Your task to perform on an android device: Search for "usb-c" on walmart, select the first entry, add it to the cart, then select checkout. Image 0: 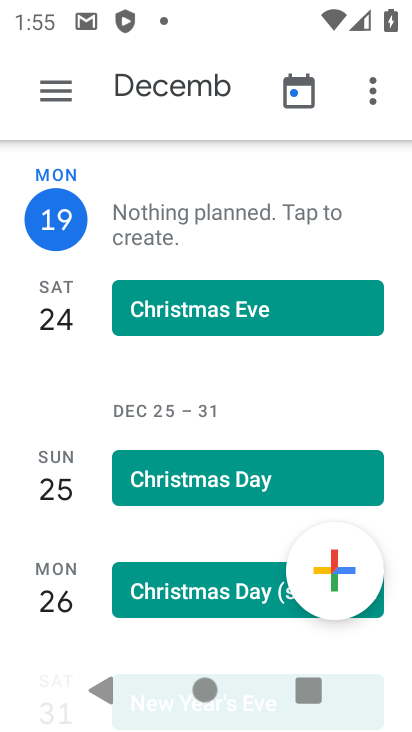
Step 0: press home button
Your task to perform on an android device: Search for "usb-c" on walmart, select the first entry, add it to the cart, then select checkout. Image 1: 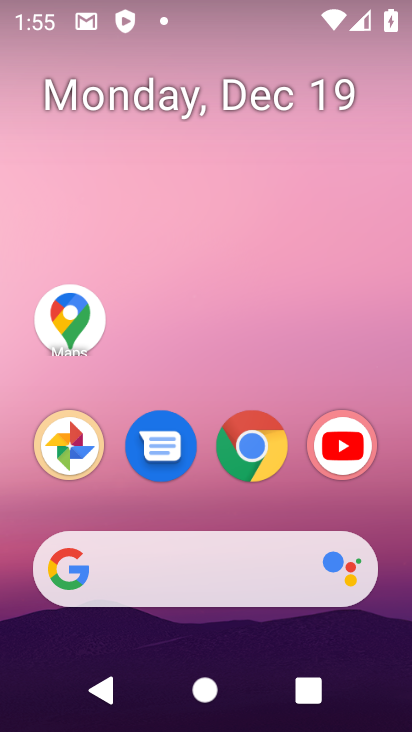
Step 1: click (259, 463)
Your task to perform on an android device: Search for "usb-c" on walmart, select the first entry, add it to the cart, then select checkout. Image 2: 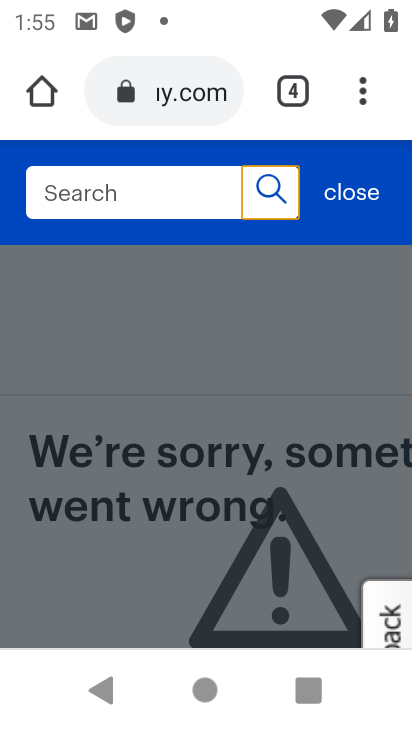
Step 2: click (196, 113)
Your task to perform on an android device: Search for "usb-c" on walmart, select the first entry, add it to the cart, then select checkout. Image 3: 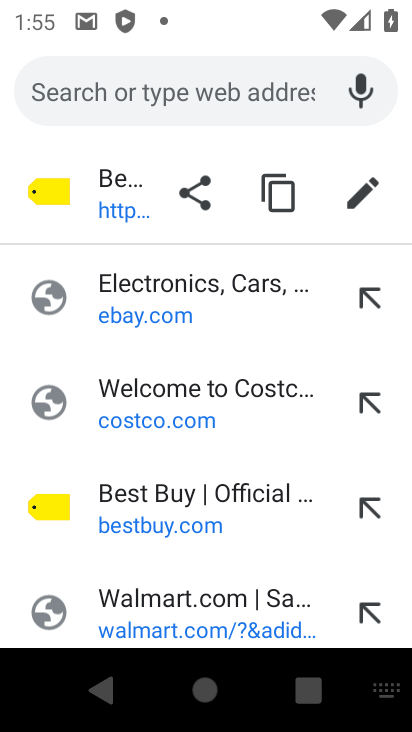
Step 3: type "walmart"
Your task to perform on an android device: Search for "usb-c" on walmart, select the first entry, add it to the cart, then select checkout. Image 4: 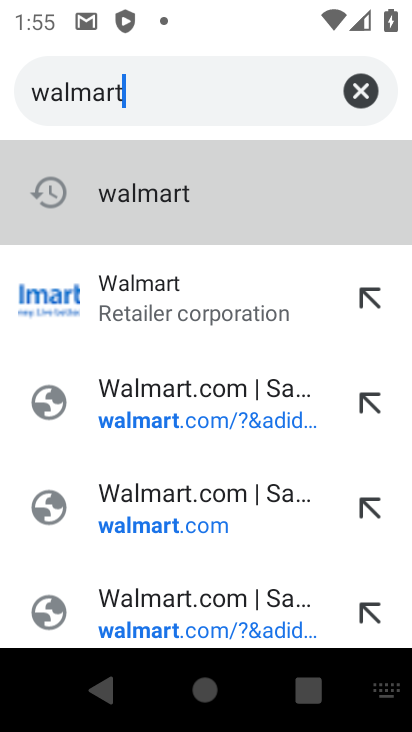
Step 4: click (161, 281)
Your task to perform on an android device: Search for "usb-c" on walmart, select the first entry, add it to the cart, then select checkout. Image 5: 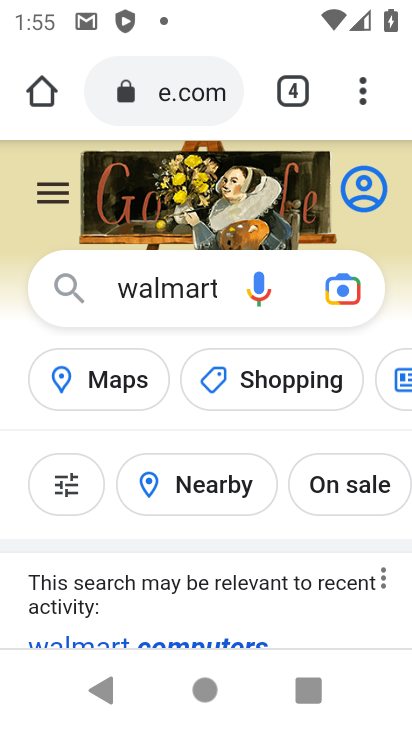
Step 5: click (147, 639)
Your task to perform on an android device: Search for "usb-c" on walmart, select the first entry, add it to the cart, then select checkout. Image 6: 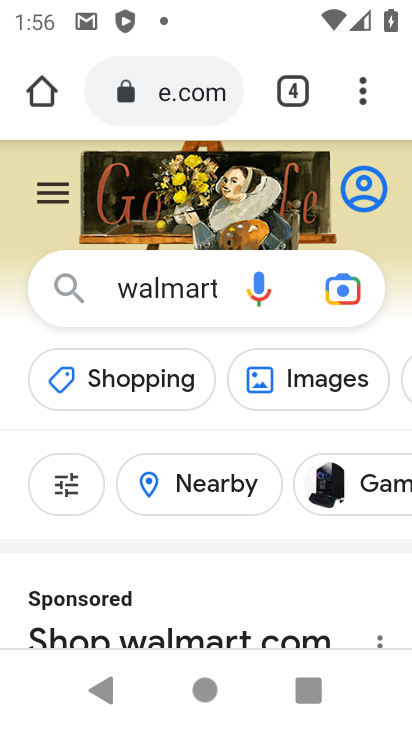
Step 6: drag from (103, 611) to (52, 103)
Your task to perform on an android device: Search for "usb-c" on walmart, select the first entry, add it to the cart, then select checkout. Image 7: 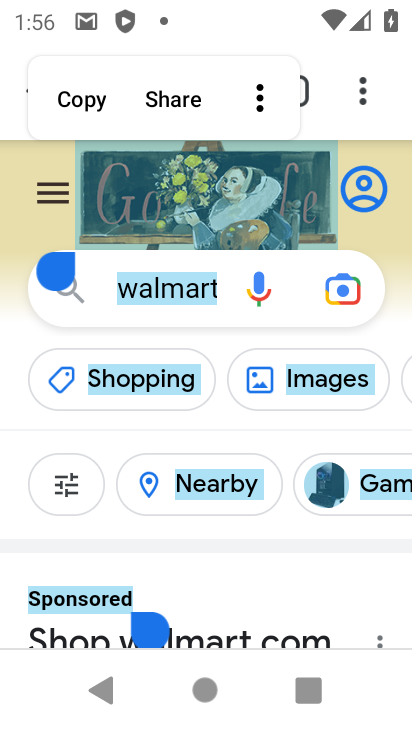
Step 7: click (264, 576)
Your task to perform on an android device: Search for "usb-c" on walmart, select the first entry, add it to the cart, then select checkout. Image 8: 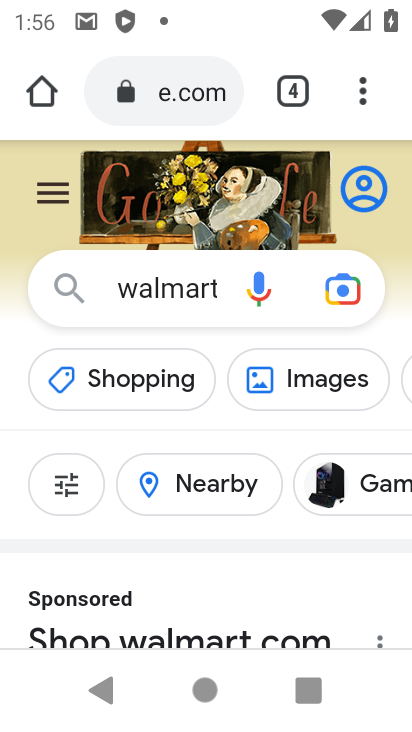
Step 8: drag from (264, 576) to (234, 126)
Your task to perform on an android device: Search for "usb-c" on walmart, select the first entry, add it to the cart, then select checkout. Image 9: 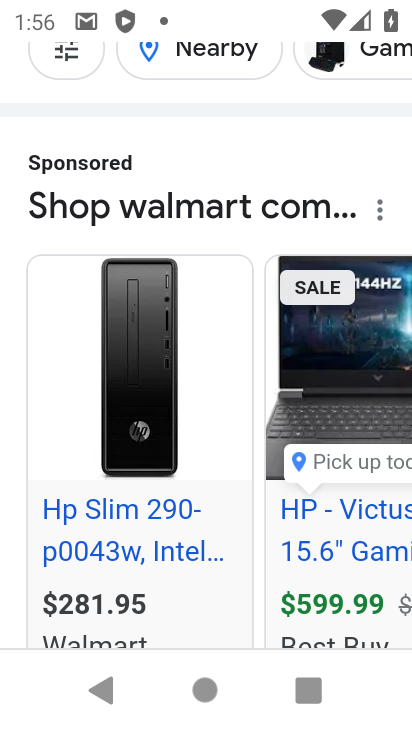
Step 9: drag from (224, 610) to (214, 451)
Your task to perform on an android device: Search for "usb-c" on walmart, select the first entry, add it to the cart, then select checkout. Image 10: 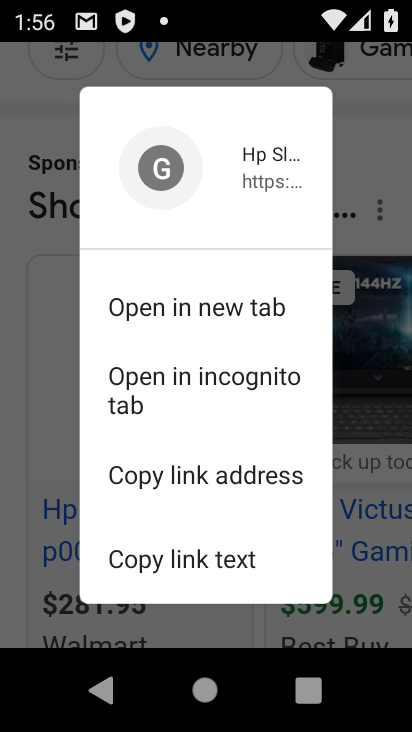
Step 10: click (62, 538)
Your task to perform on an android device: Search for "usb-c" on walmart, select the first entry, add it to the cart, then select checkout. Image 11: 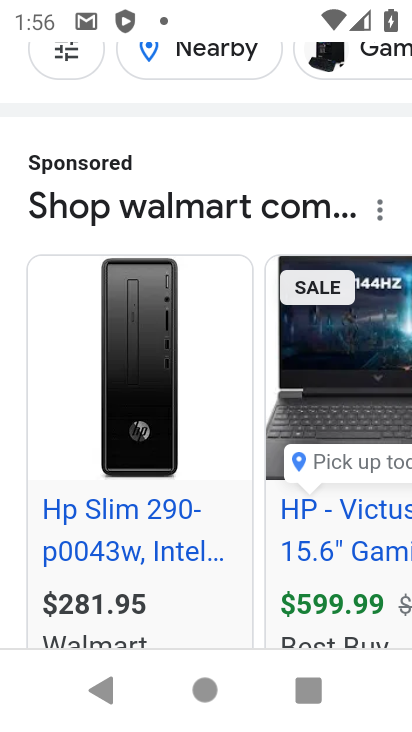
Step 11: click (62, 538)
Your task to perform on an android device: Search for "usb-c" on walmart, select the first entry, add it to the cart, then select checkout. Image 12: 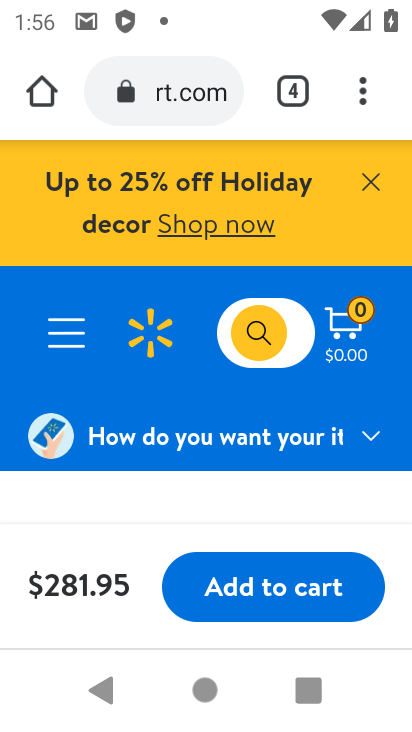
Step 12: click (234, 340)
Your task to perform on an android device: Search for "usb-c" on walmart, select the first entry, add it to the cart, then select checkout. Image 13: 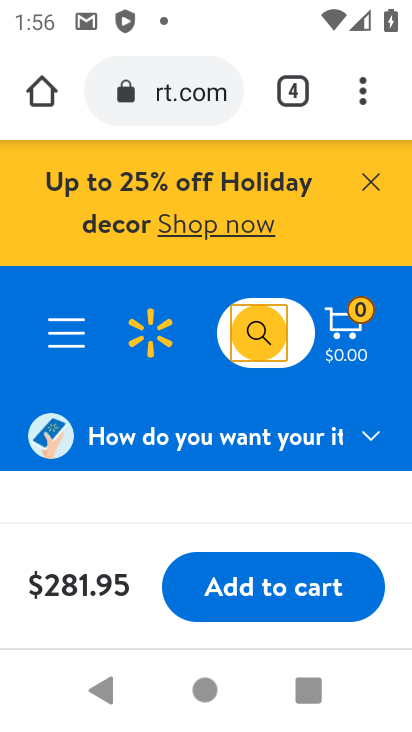
Step 13: click (225, 341)
Your task to perform on an android device: Search for "usb-c" on walmart, select the first entry, add it to the cart, then select checkout. Image 14: 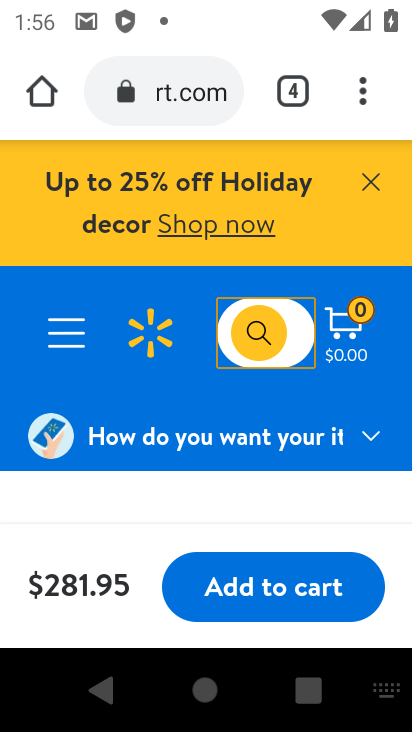
Step 14: click (267, 351)
Your task to perform on an android device: Search for "usb-c" on walmart, select the first entry, add it to the cart, then select checkout. Image 15: 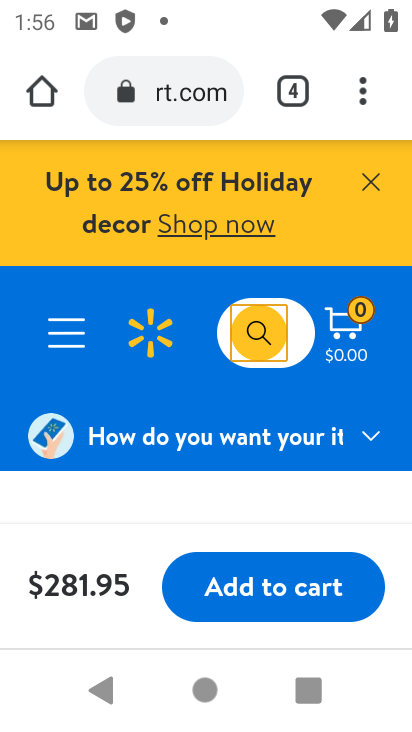
Step 15: click (289, 351)
Your task to perform on an android device: Search for "usb-c" on walmart, select the first entry, add it to the cart, then select checkout. Image 16: 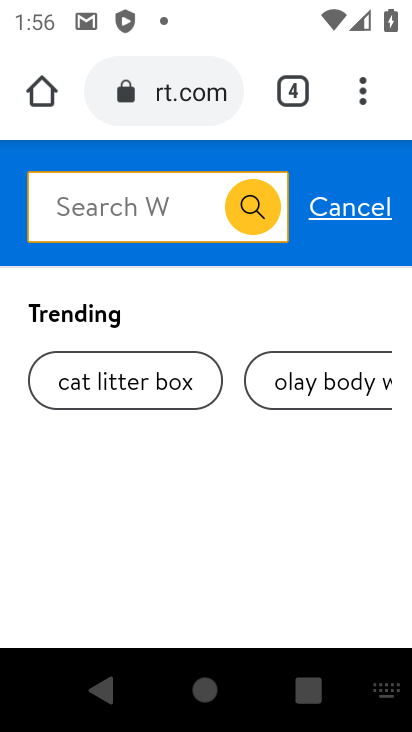
Step 16: type "usb-c"
Your task to perform on an android device: Search for "usb-c" on walmart, select the first entry, add it to the cart, then select checkout. Image 17: 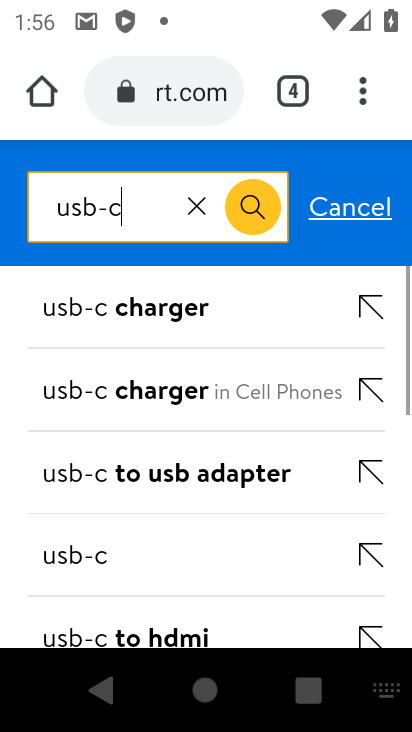
Step 17: click (263, 211)
Your task to perform on an android device: Search for "usb-c" on walmart, select the first entry, add it to the cart, then select checkout. Image 18: 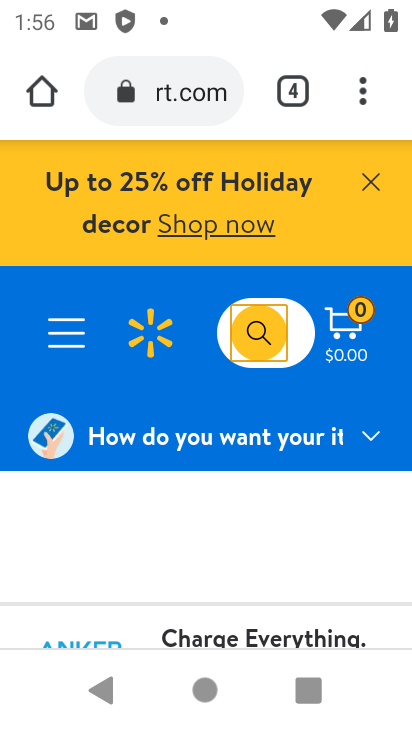
Step 18: drag from (240, 571) to (241, 203)
Your task to perform on an android device: Search for "usb-c" on walmart, select the first entry, add it to the cart, then select checkout. Image 19: 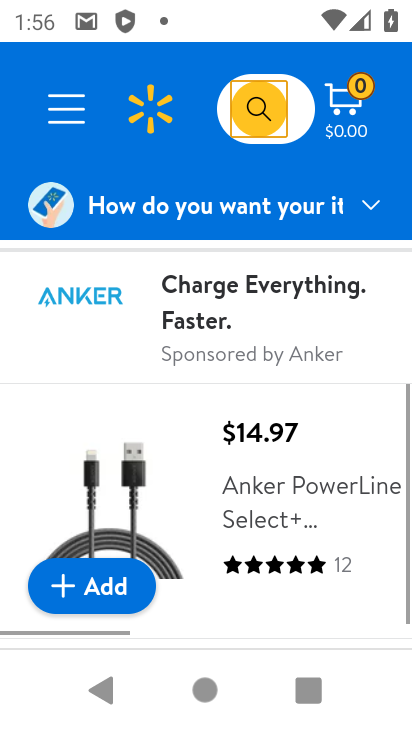
Step 19: click (78, 584)
Your task to perform on an android device: Search for "usb-c" on walmart, select the first entry, add it to the cart, then select checkout. Image 20: 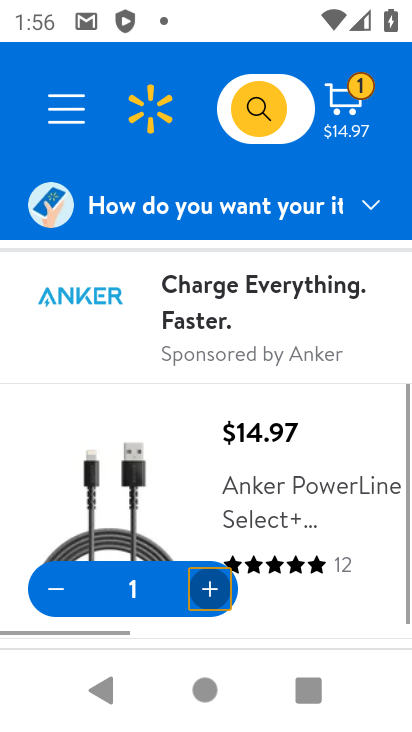
Step 20: task complete